Your task to perform on an android device: Open Amazon Image 0: 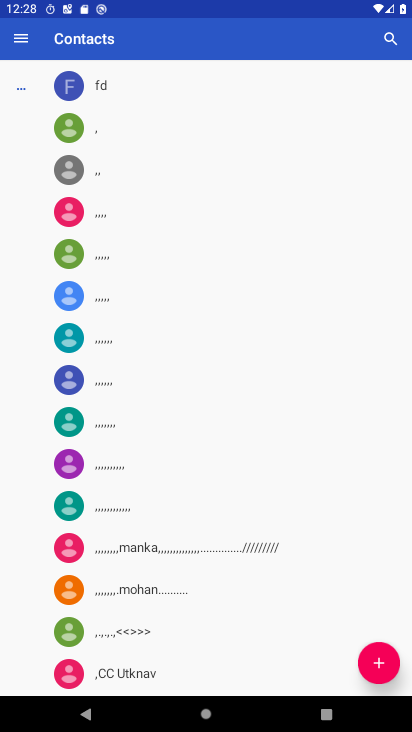
Step 0: press home button
Your task to perform on an android device: Open Amazon Image 1: 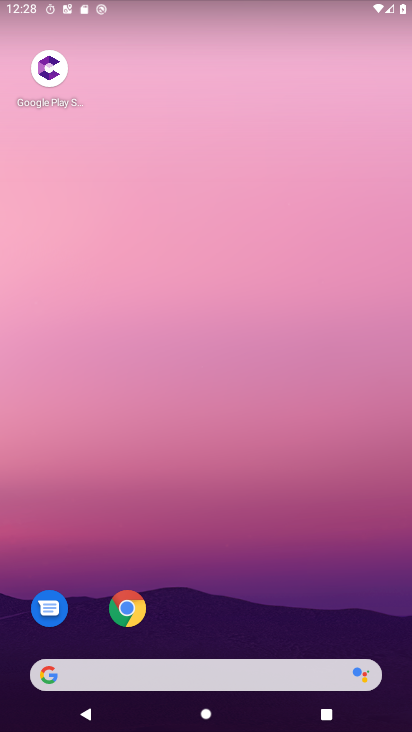
Step 1: drag from (395, 605) to (359, 231)
Your task to perform on an android device: Open Amazon Image 2: 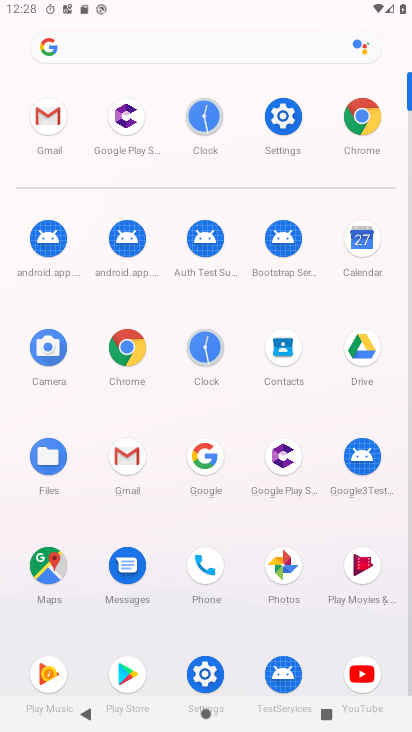
Step 2: click (126, 350)
Your task to perform on an android device: Open Amazon Image 3: 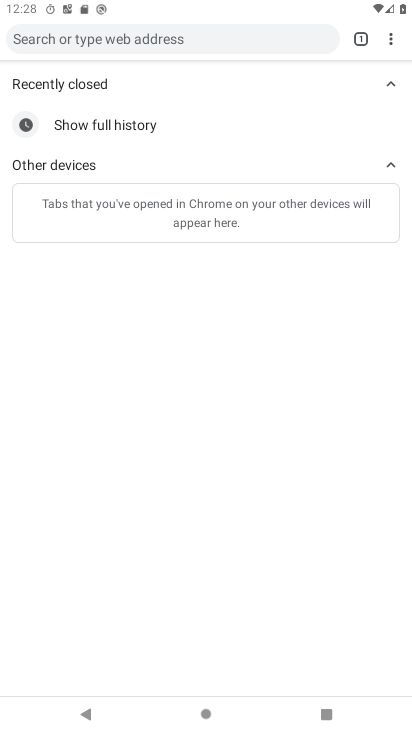
Step 3: click (265, 38)
Your task to perform on an android device: Open Amazon Image 4: 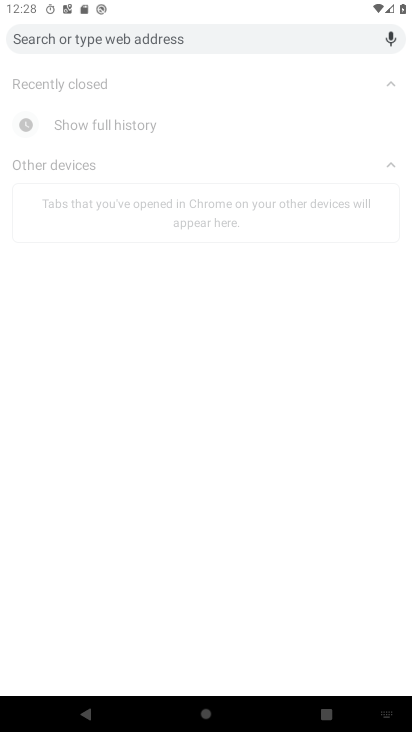
Step 4: type "Amazon"
Your task to perform on an android device: Open Amazon Image 5: 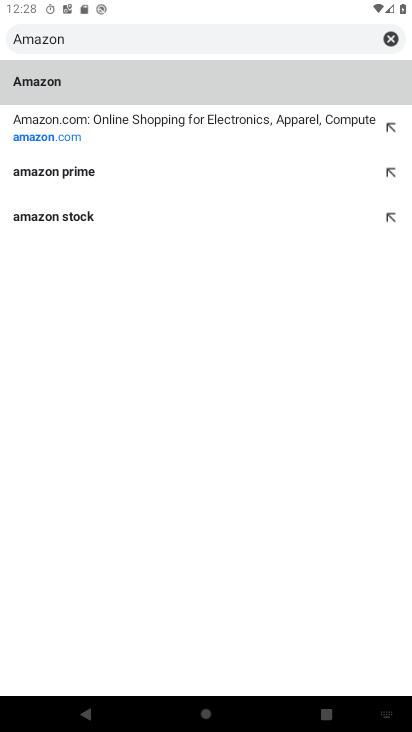
Step 5: click (26, 131)
Your task to perform on an android device: Open Amazon Image 6: 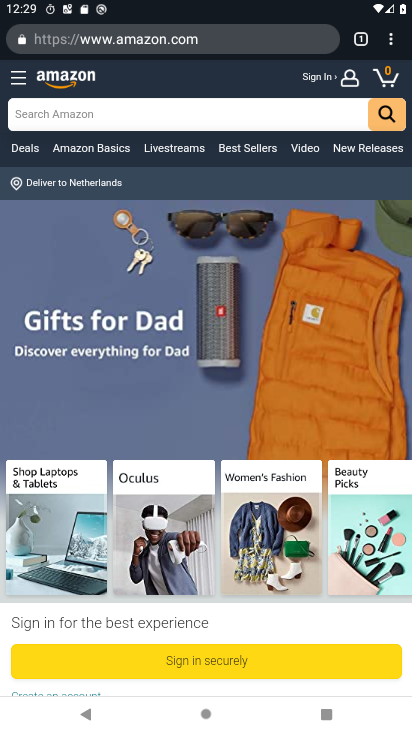
Step 6: task complete